Your task to perform on an android device: toggle show notifications on the lock screen Image 0: 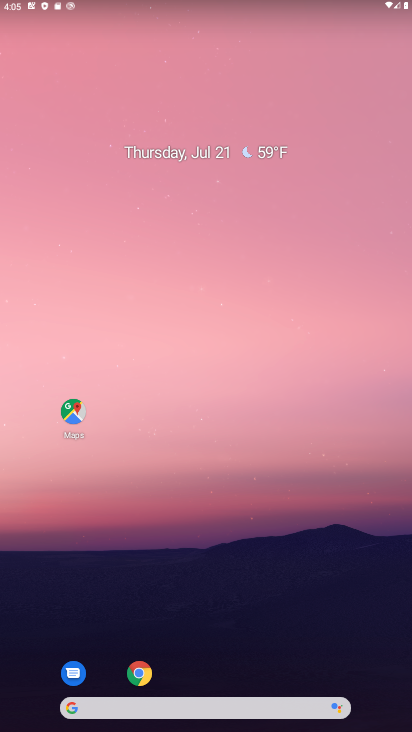
Step 0: drag from (370, 684) to (329, 281)
Your task to perform on an android device: toggle show notifications on the lock screen Image 1: 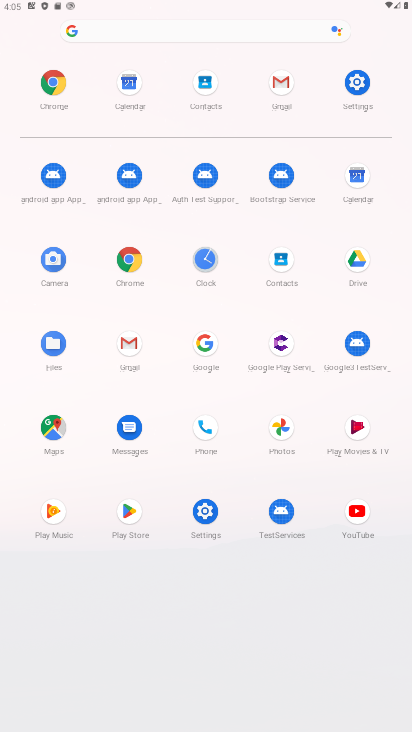
Step 1: click (205, 512)
Your task to perform on an android device: toggle show notifications on the lock screen Image 2: 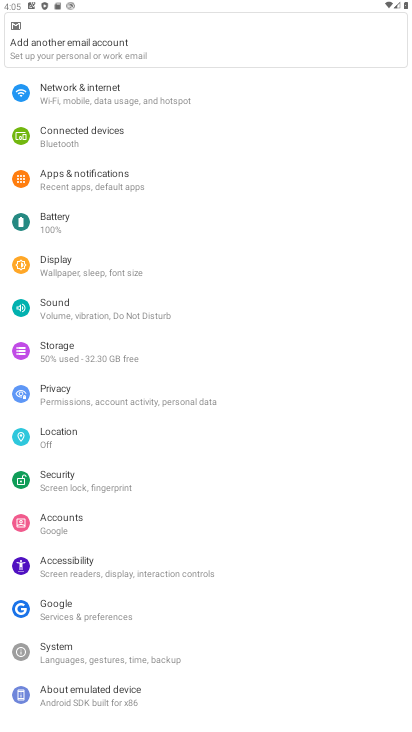
Step 2: click (120, 178)
Your task to perform on an android device: toggle show notifications on the lock screen Image 3: 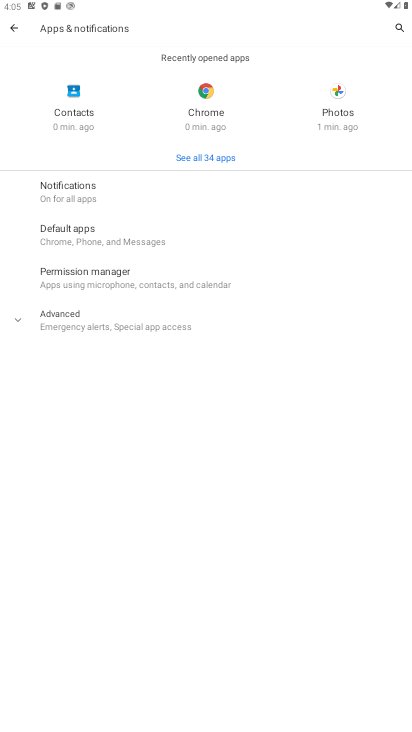
Step 3: click (71, 192)
Your task to perform on an android device: toggle show notifications on the lock screen Image 4: 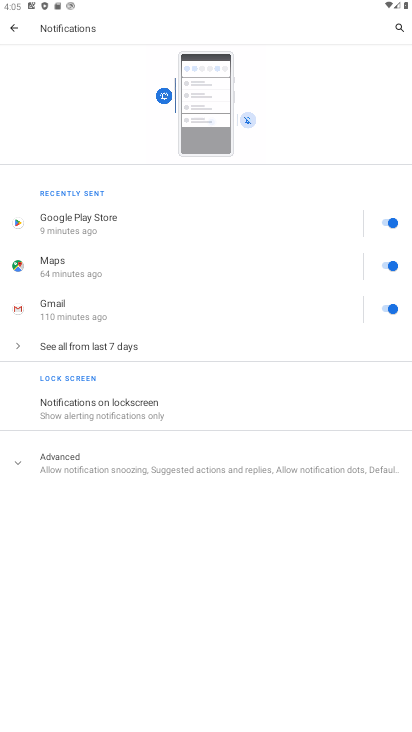
Step 4: click (113, 411)
Your task to perform on an android device: toggle show notifications on the lock screen Image 5: 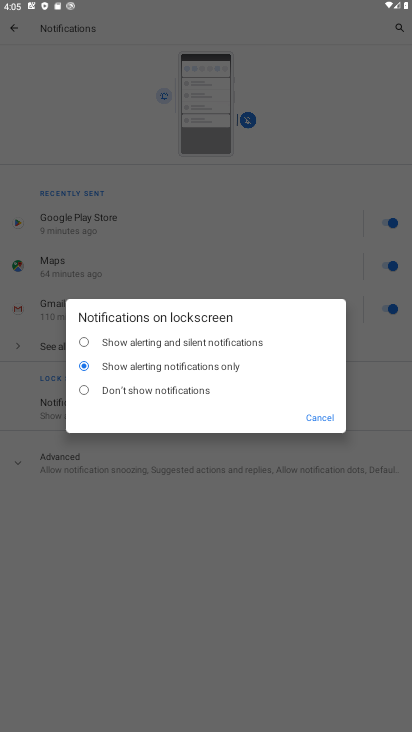
Step 5: click (82, 343)
Your task to perform on an android device: toggle show notifications on the lock screen Image 6: 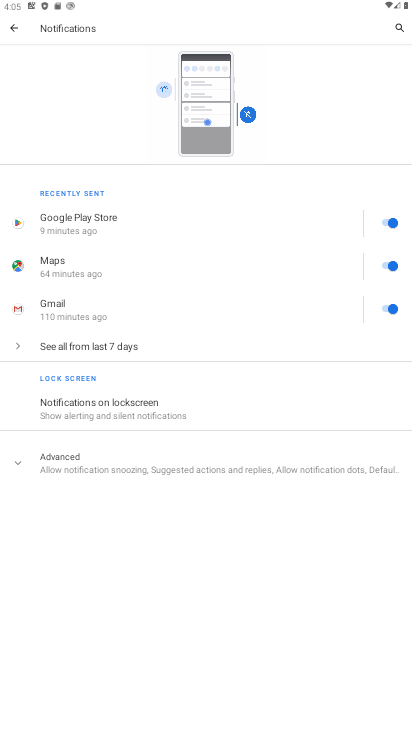
Step 6: task complete